Your task to perform on an android device: Open the stopwatch Image 0: 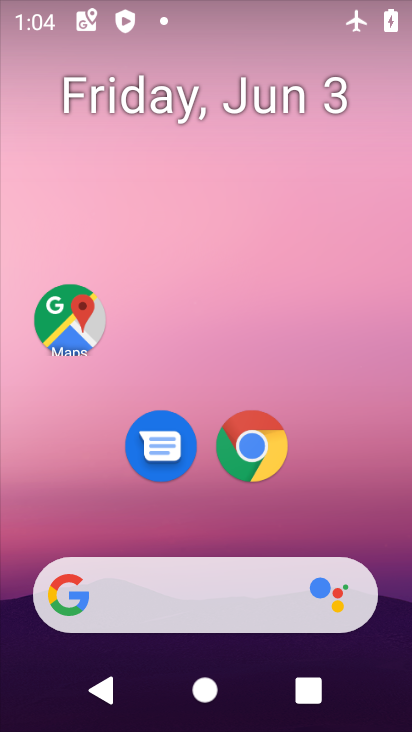
Step 0: drag from (258, 686) to (387, 27)
Your task to perform on an android device: Open the stopwatch Image 1: 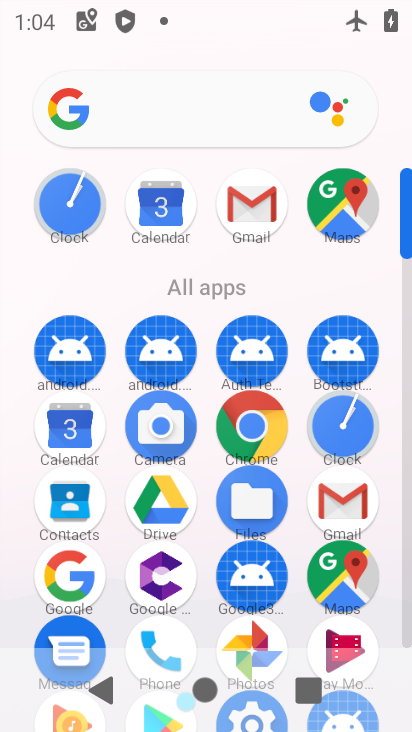
Step 1: click (338, 427)
Your task to perform on an android device: Open the stopwatch Image 2: 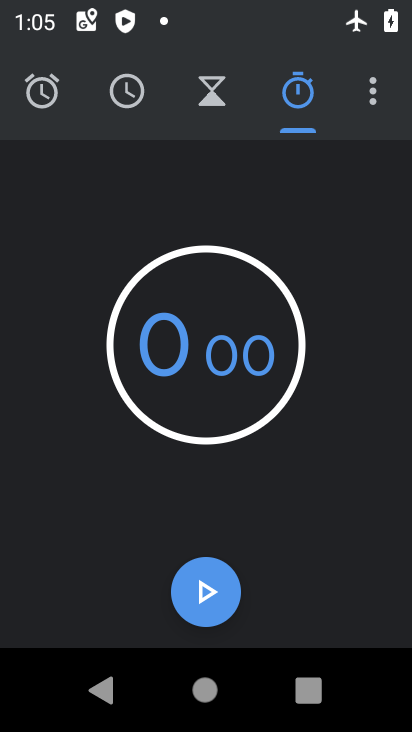
Step 2: task complete